Your task to perform on an android device: Do I have any events this weekend? Image 0: 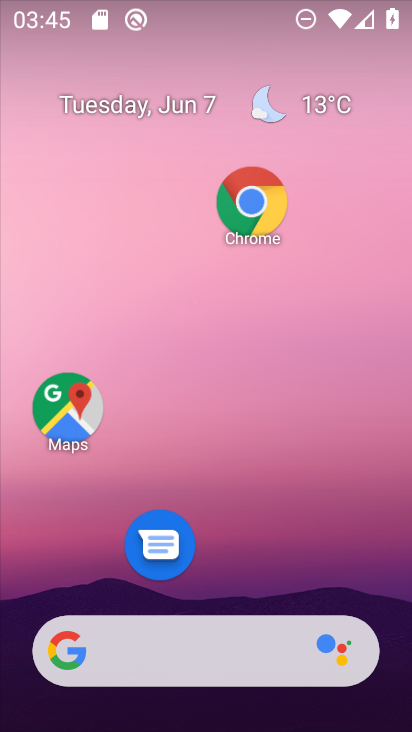
Step 0: drag from (279, 555) to (252, 282)
Your task to perform on an android device: Do I have any events this weekend? Image 1: 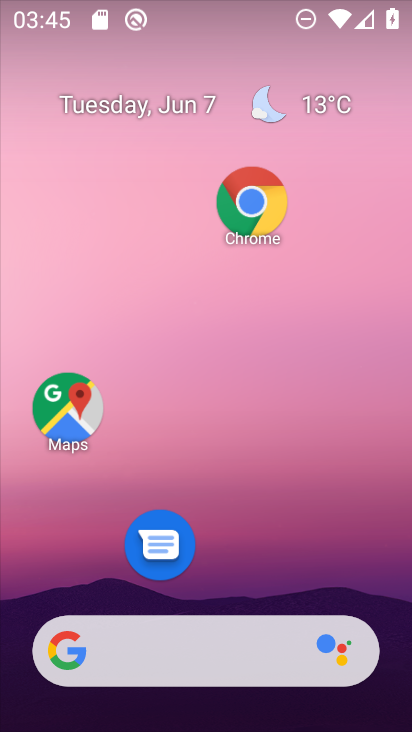
Step 1: drag from (241, 578) to (241, 171)
Your task to perform on an android device: Do I have any events this weekend? Image 2: 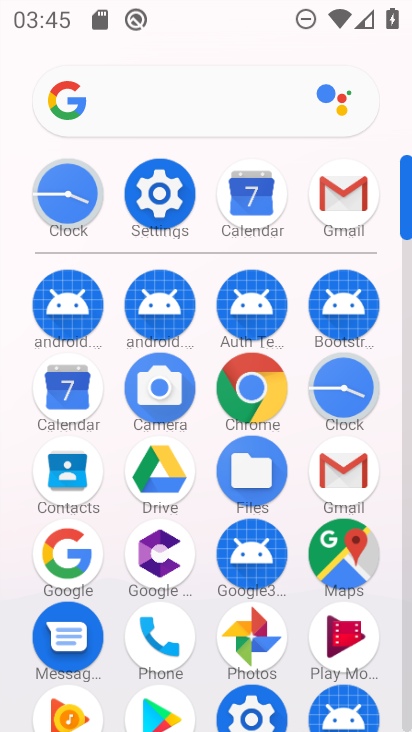
Step 2: click (67, 388)
Your task to perform on an android device: Do I have any events this weekend? Image 3: 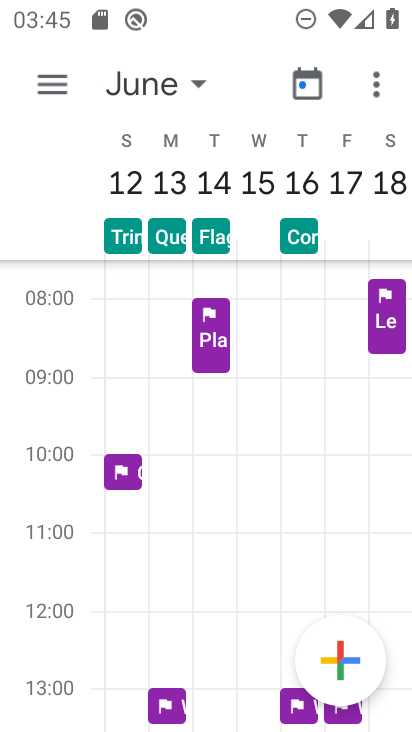
Step 3: task complete